Your task to perform on an android device: turn pop-ups on in chrome Image 0: 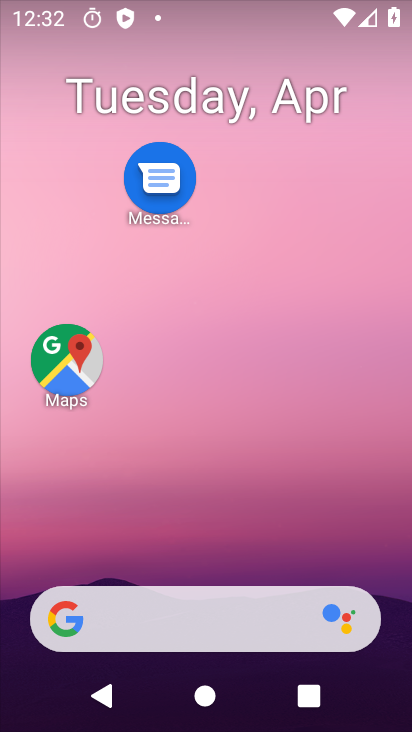
Step 0: drag from (219, 717) to (221, 92)
Your task to perform on an android device: turn pop-ups on in chrome Image 1: 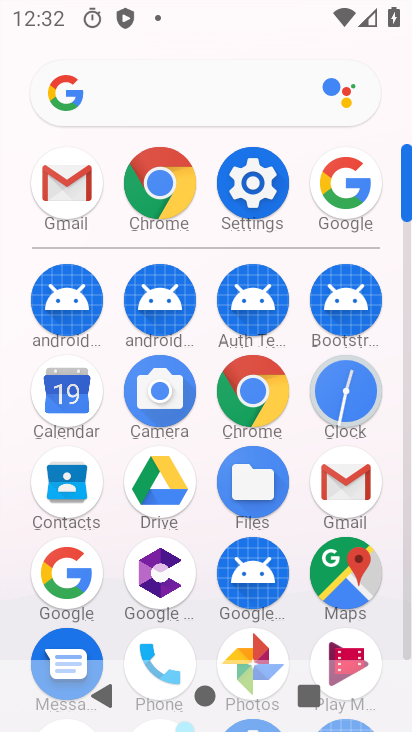
Step 1: click (162, 185)
Your task to perform on an android device: turn pop-ups on in chrome Image 2: 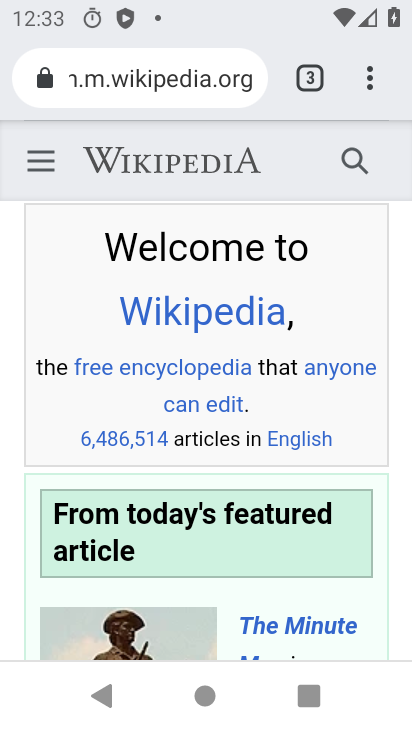
Step 2: click (368, 70)
Your task to perform on an android device: turn pop-ups on in chrome Image 3: 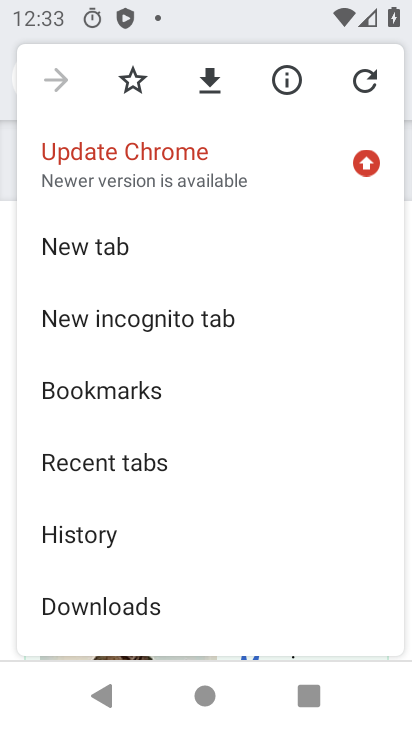
Step 3: drag from (165, 542) to (165, 153)
Your task to perform on an android device: turn pop-ups on in chrome Image 4: 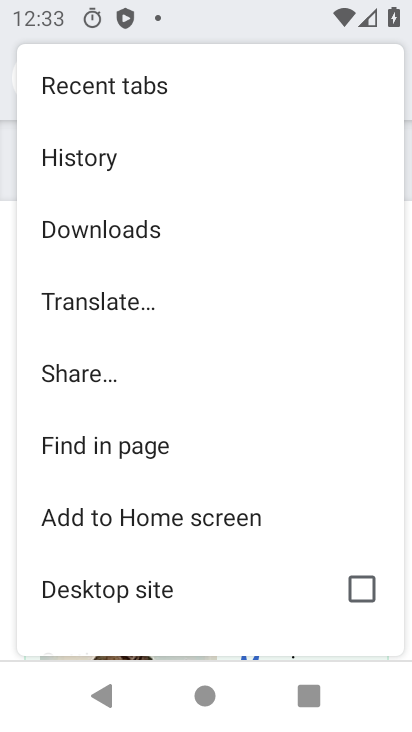
Step 4: drag from (183, 606) to (173, 142)
Your task to perform on an android device: turn pop-ups on in chrome Image 5: 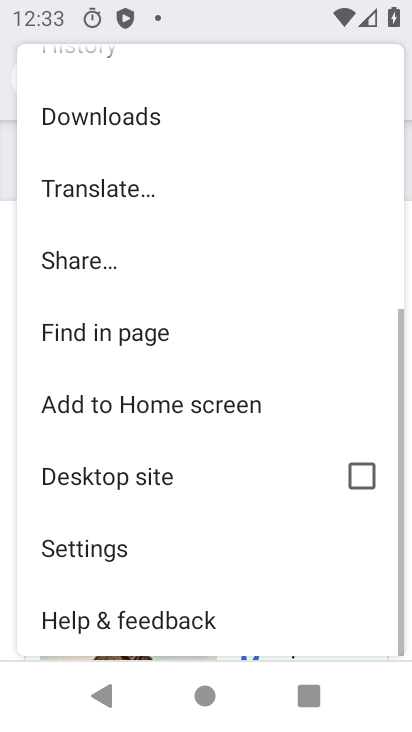
Step 5: click (100, 549)
Your task to perform on an android device: turn pop-ups on in chrome Image 6: 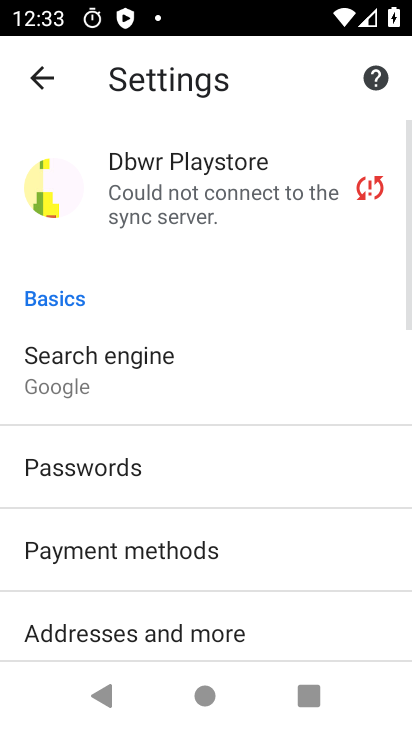
Step 6: drag from (143, 572) to (149, 159)
Your task to perform on an android device: turn pop-ups on in chrome Image 7: 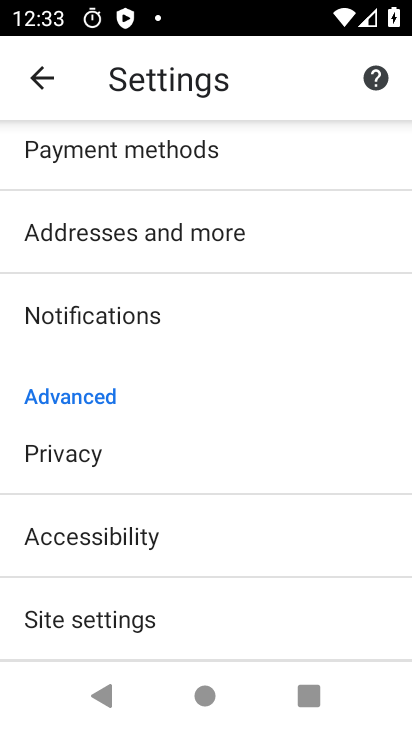
Step 7: click (125, 616)
Your task to perform on an android device: turn pop-ups on in chrome Image 8: 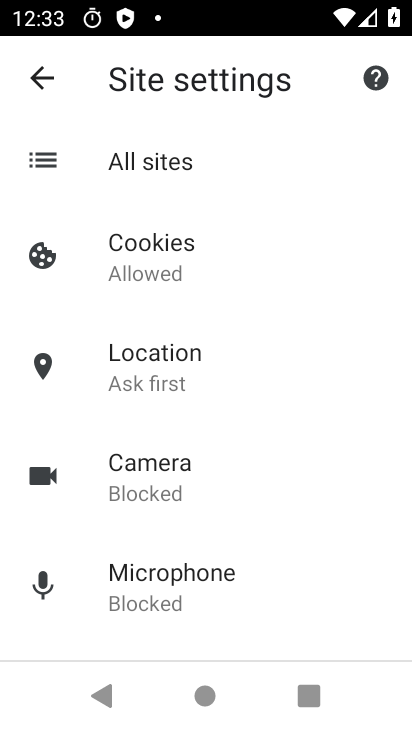
Step 8: drag from (195, 620) to (210, 157)
Your task to perform on an android device: turn pop-ups on in chrome Image 9: 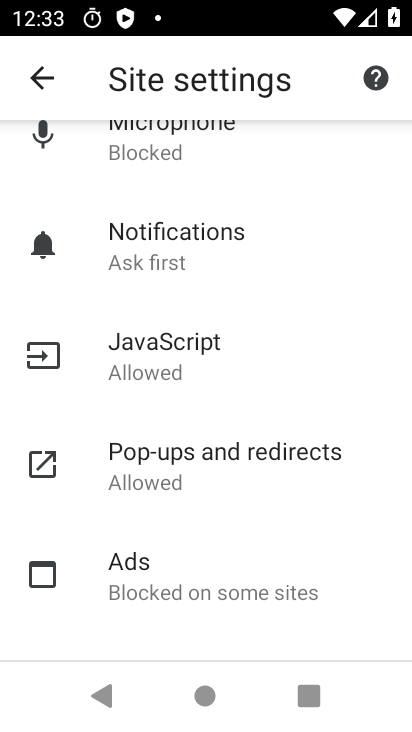
Step 9: click (165, 459)
Your task to perform on an android device: turn pop-ups on in chrome Image 10: 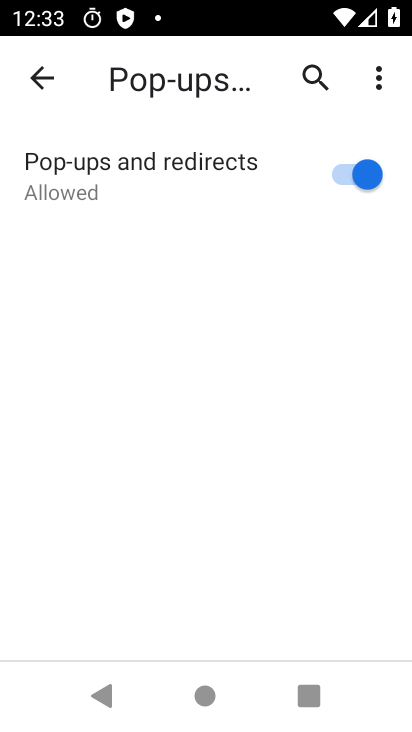
Step 10: task complete